Your task to perform on an android device: open sync settings in chrome Image 0: 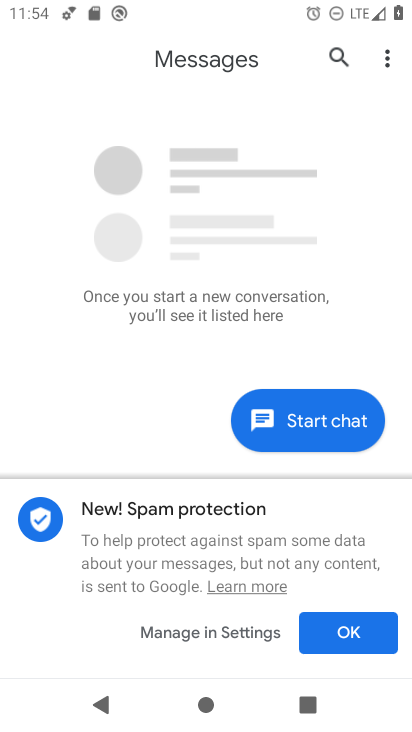
Step 0: press home button
Your task to perform on an android device: open sync settings in chrome Image 1: 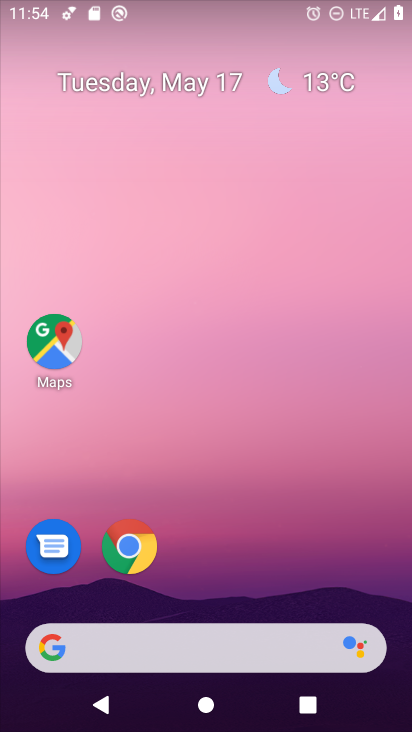
Step 1: click (135, 529)
Your task to perform on an android device: open sync settings in chrome Image 2: 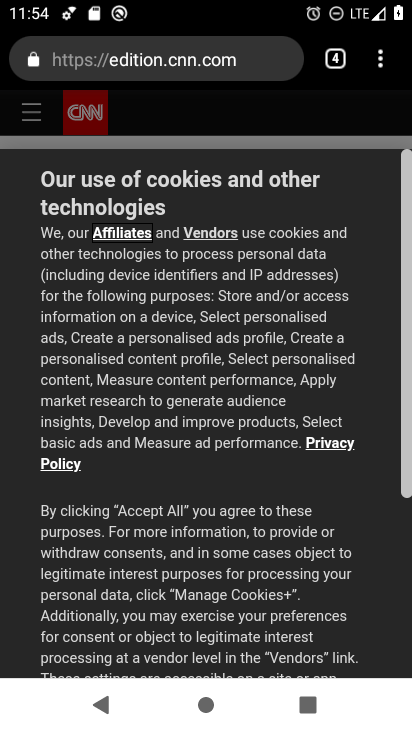
Step 2: click (385, 57)
Your task to perform on an android device: open sync settings in chrome Image 3: 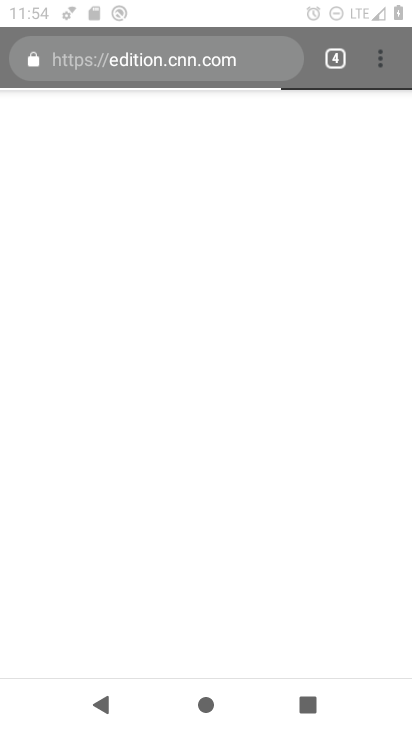
Step 3: click (383, 58)
Your task to perform on an android device: open sync settings in chrome Image 4: 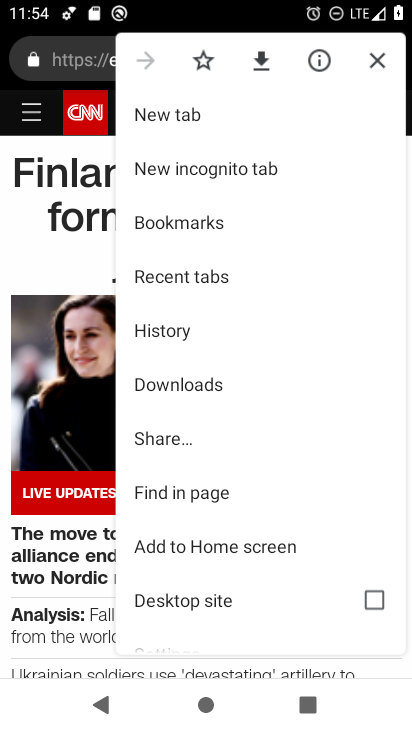
Step 4: drag from (205, 558) to (237, 257)
Your task to perform on an android device: open sync settings in chrome Image 5: 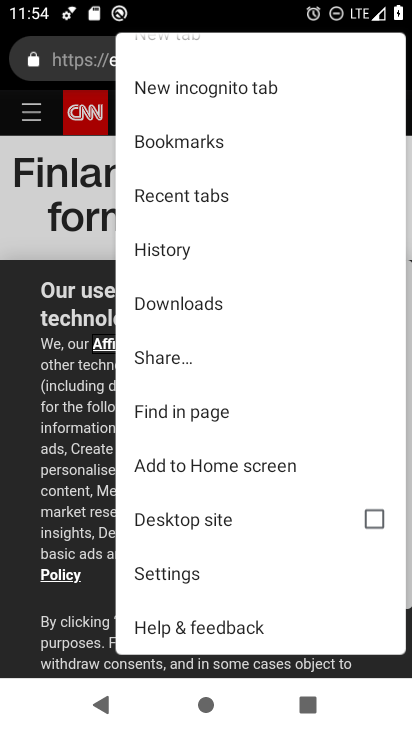
Step 5: click (174, 564)
Your task to perform on an android device: open sync settings in chrome Image 6: 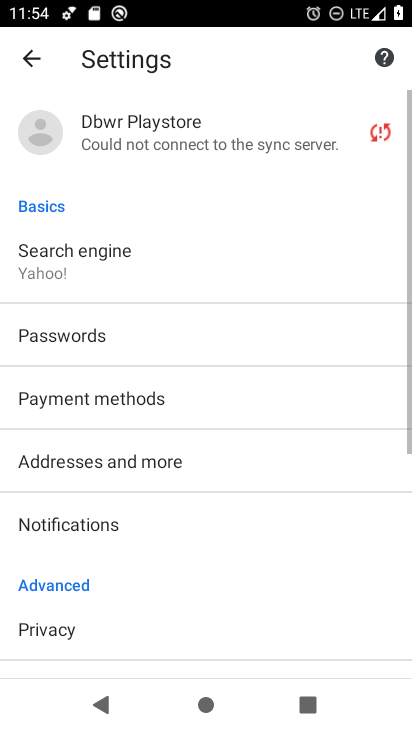
Step 6: click (144, 145)
Your task to perform on an android device: open sync settings in chrome Image 7: 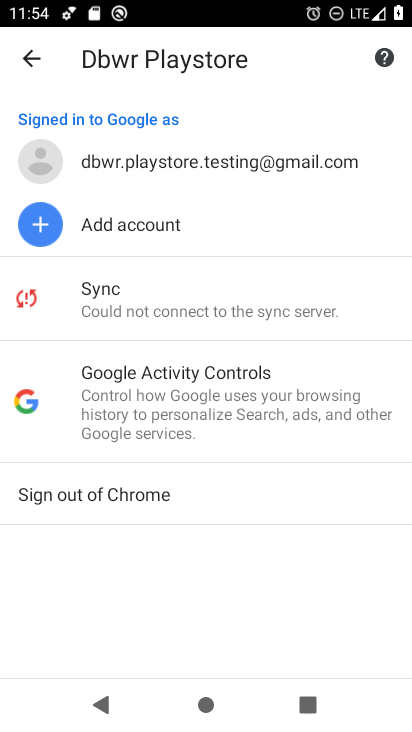
Step 7: click (106, 339)
Your task to perform on an android device: open sync settings in chrome Image 8: 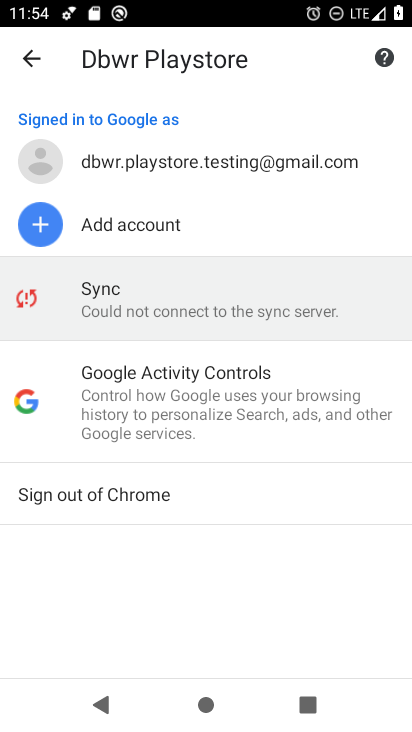
Step 8: click (110, 311)
Your task to perform on an android device: open sync settings in chrome Image 9: 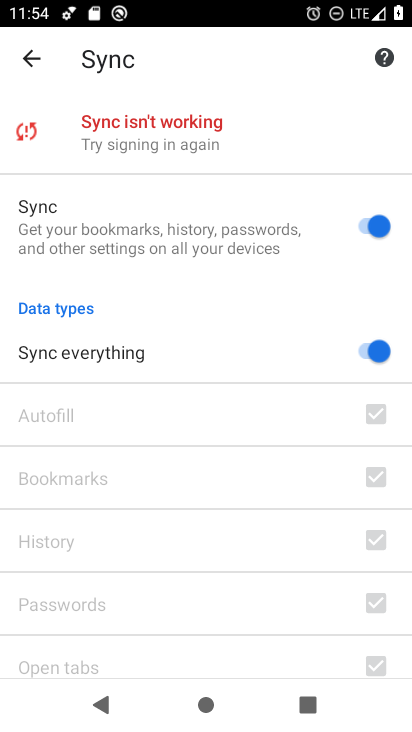
Step 9: task complete